Your task to perform on an android device: check the backup settings in the google photos Image 0: 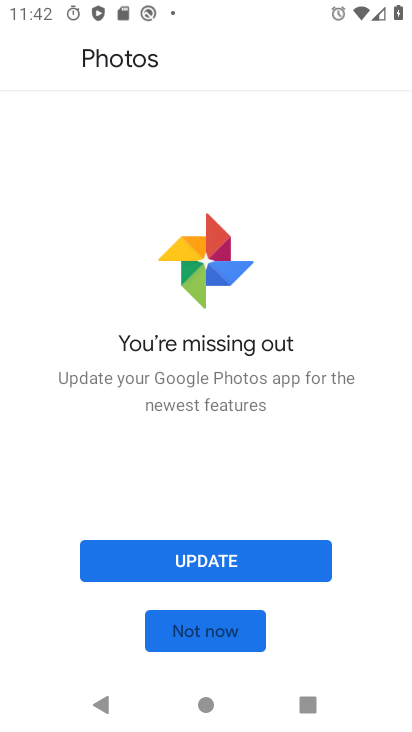
Step 0: press home button
Your task to perform on an android device: check the backup settings in the google photos Image 1: 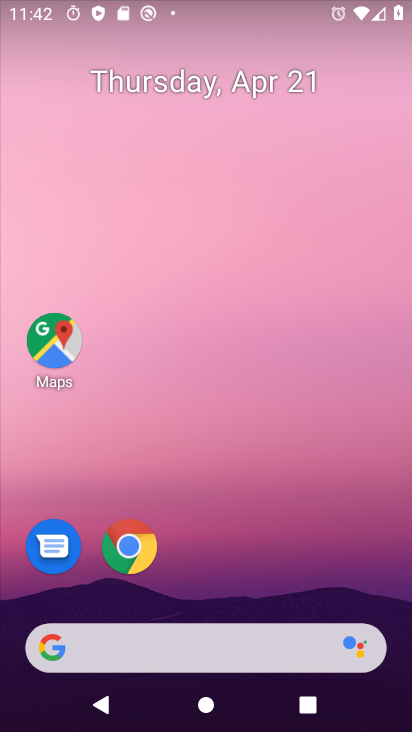
Step 1: drag from (233, 493) to (240, 100)
Your task to perform on an android device: check the backup settings in the google photos Image 2: 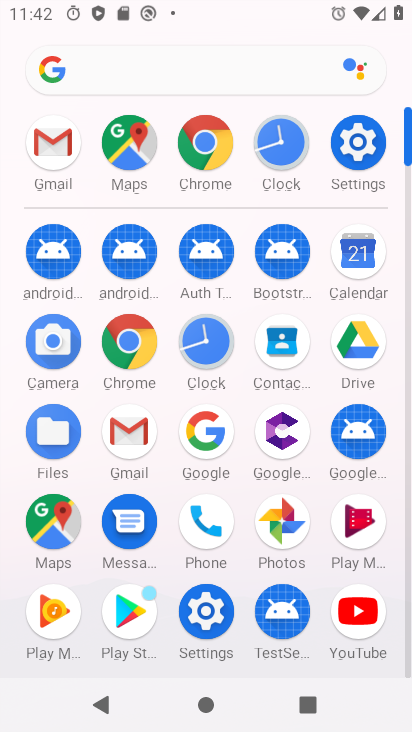
Step 2: click (284, 522)
Your task to perform on an android device: check the backup settings in the google photos Image 3: 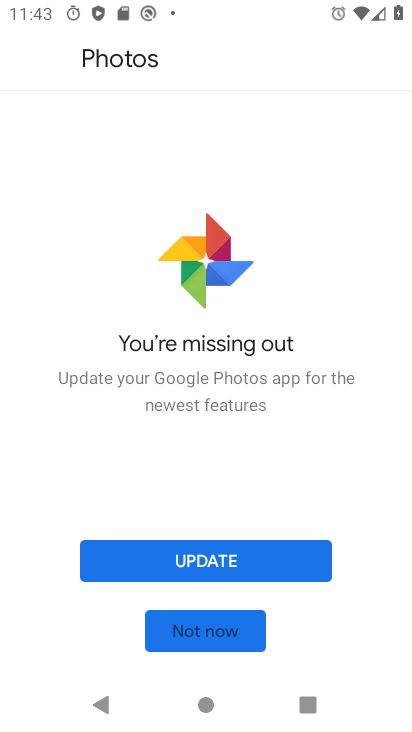
Step 3: click (214, 626)
Your task to perform on an android device: check the backup settings in the google photos Image 4: 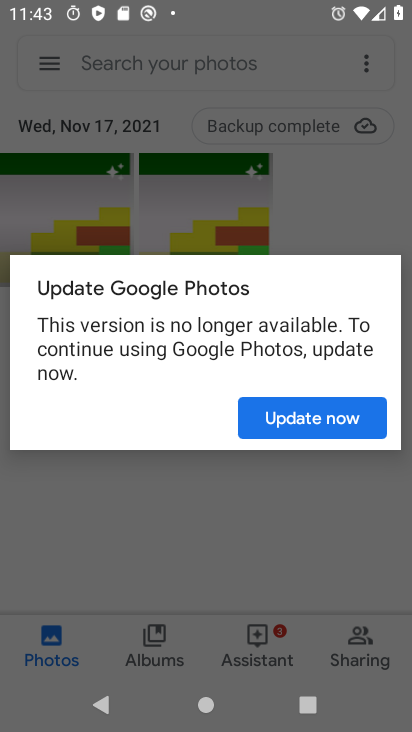
Step 4: click (326, 413)
Your task to perform on an android device: check the backup settings in the google photos Image 5: 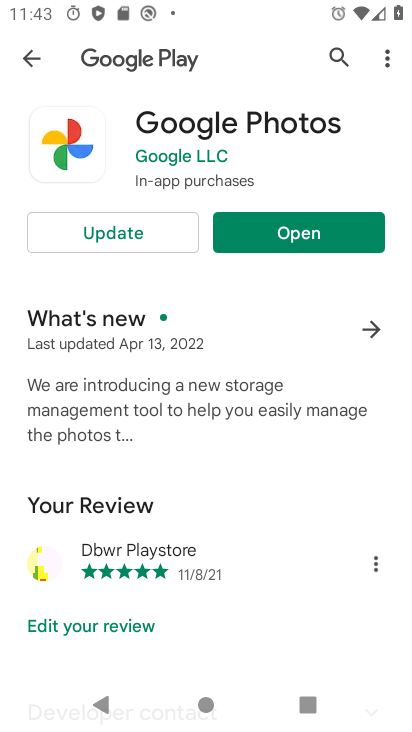
Step 5: click (288, 233)
Your task to perform on an android device: check the backup settings in the google photos Image 6: 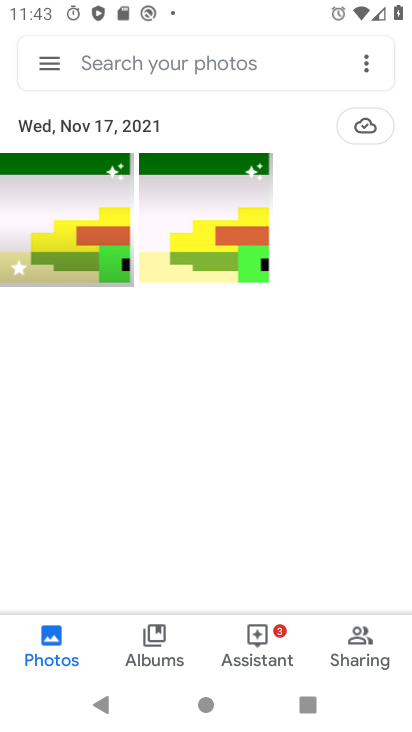
Step 6: click (50, 67)
Your task to perform on an android device: check the backup settings in the google photos Image 7: 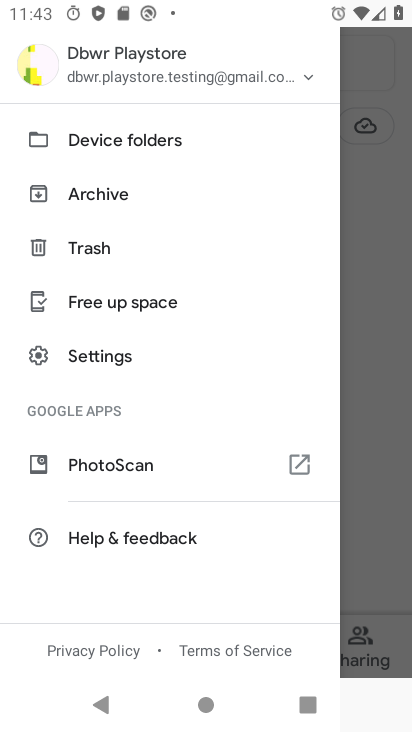
Step 7: click (116, 357)
Your task to perform on an android device: check the backup settings in the google photos Image 8: 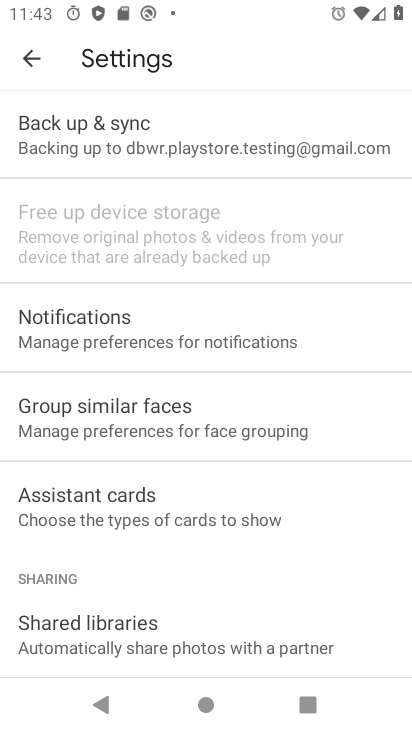
Step 8: click (165, 138)
Your task to perform on an android device: check the backup settings in the google photos Image 9: 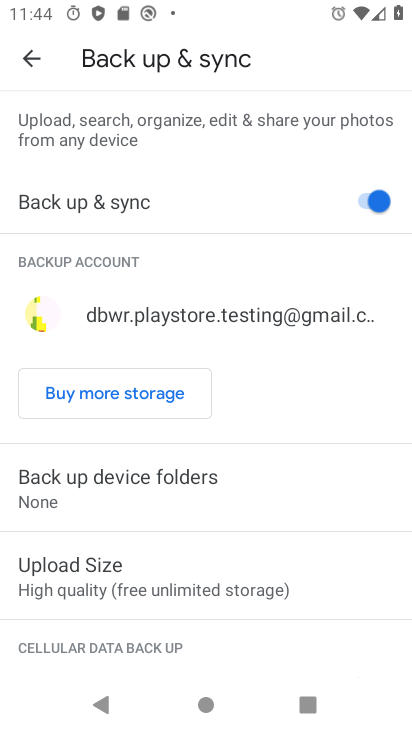
Step 9: task complete